Your task to perform on an android device: Open calendar and show me the fourth week of next month Image 0: 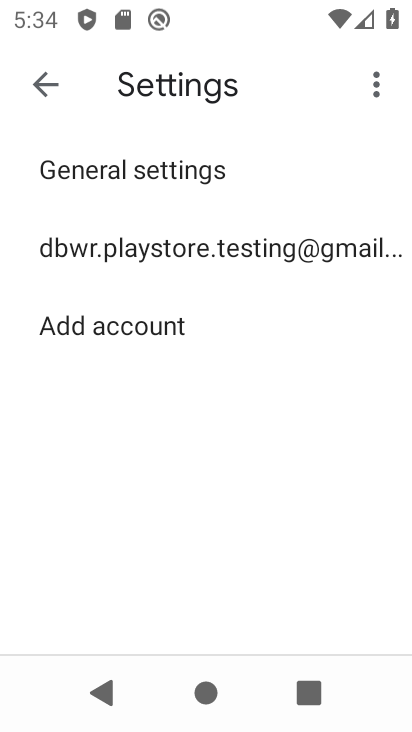
Step 0: press home button
Your task to perform on an android device: Open calendar and show me the fourth week of next month Image 1: 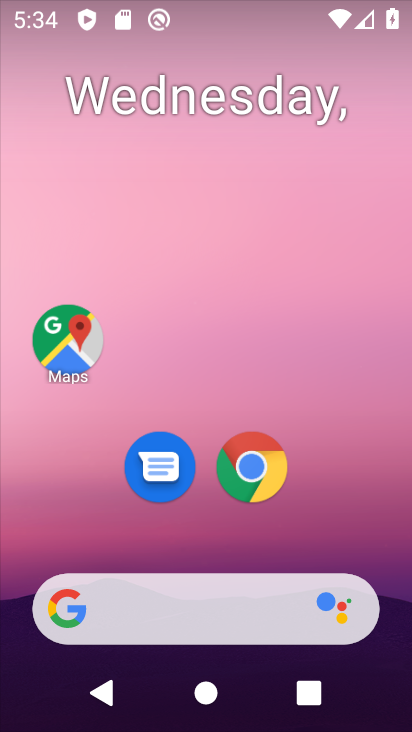
Step 1: drag from (299, 525) to (411, 101)
Your task to perform on an android device: Open calendar and show me the fourth week of next month Image 2: 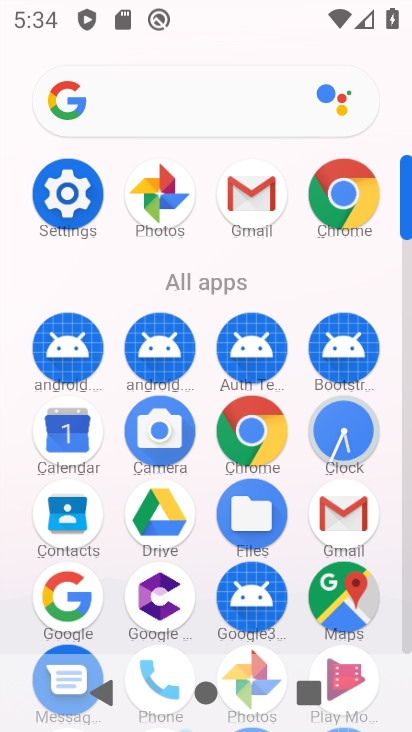
Step 2: click (59, 436)
Your task to perform on an android device: Open calendar and show me the fourth week of next month Image 3: 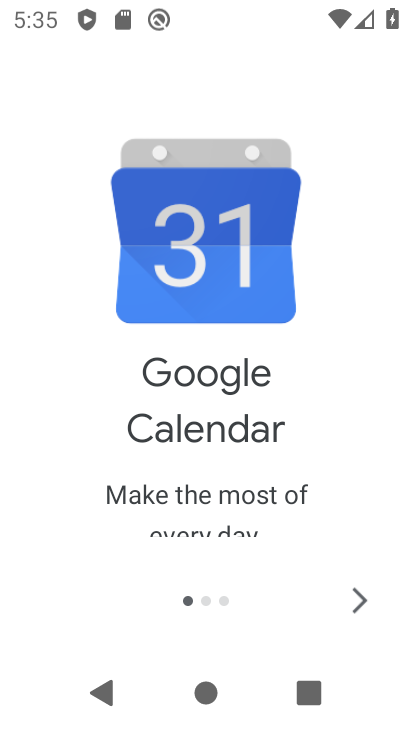
Step 3: click (359, 605)
Your task to perform on an android device: Open calendar and show me the fourth week of next month Image 4: 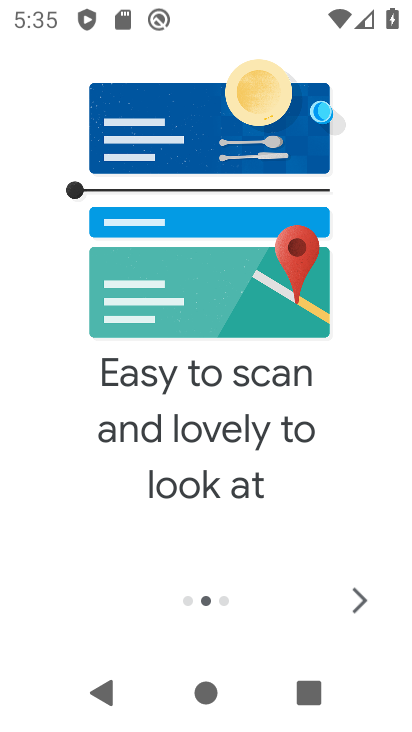
Step 4: click (359, 603)
Your task to perform on an android device: Open calendar and show me the fourth week of next month Image 5: 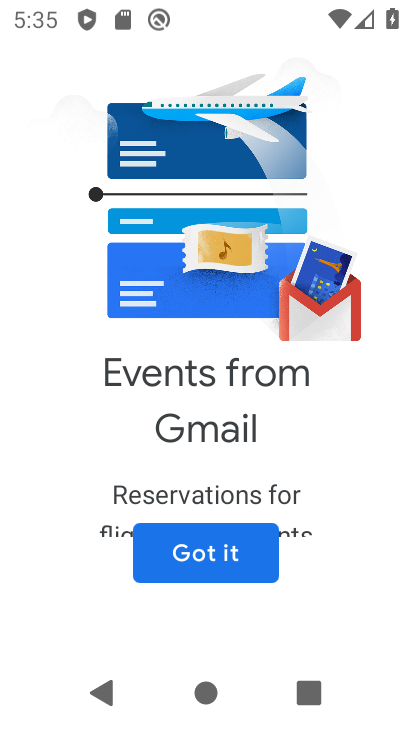
Step 5: click (191, 546)
Your task to perform on an android device: Open calendar and show me the fourth week of next month Image 6: 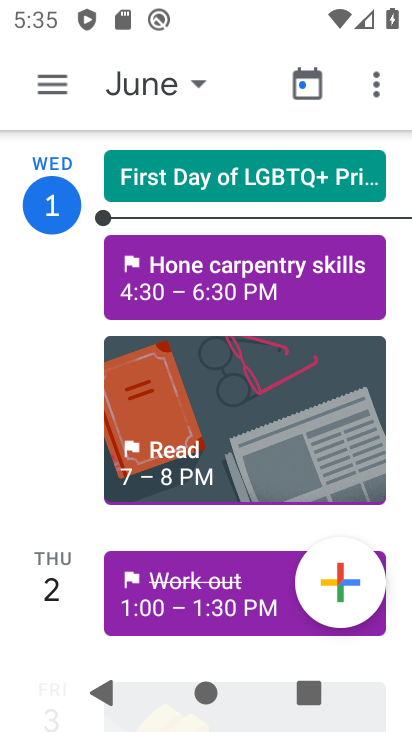
Step 6: click (181, 88)
Your task to perform on an android device: Open calendar and show me the fourth week of next month Image 7: 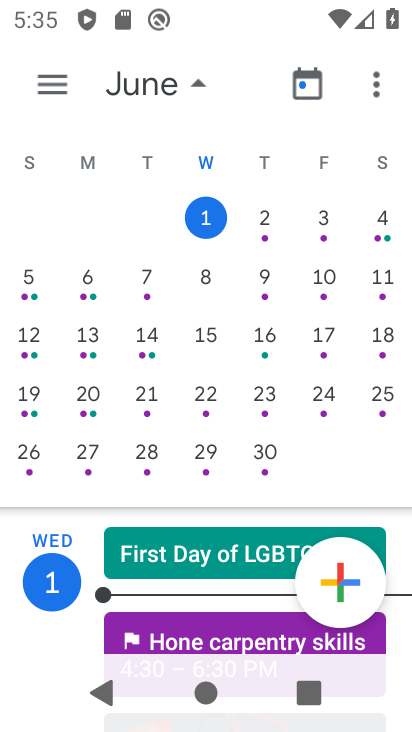
Step 7: click (149, 453)
Your task to perform on an android device: Open calendar and show me the fourth week of next month Image 8: 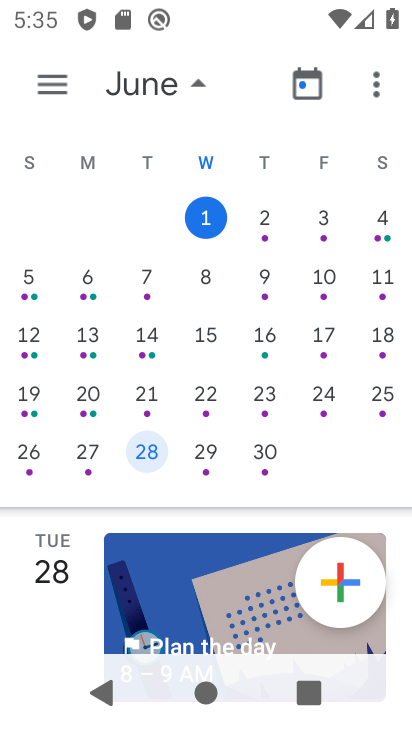
Step 8: task complete